Your task to perform on an android device: change timer sound Image 0: 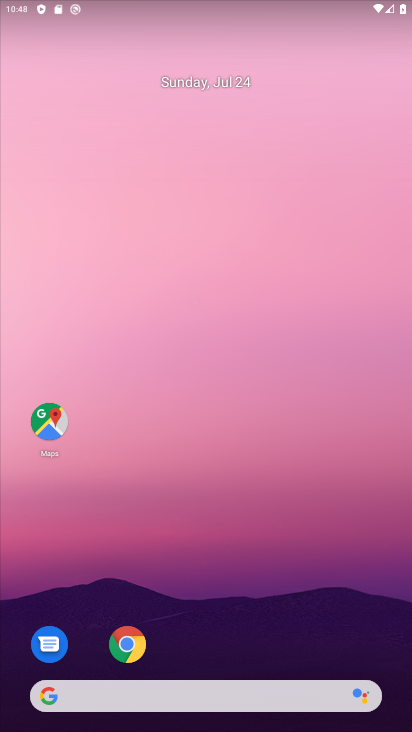
Step 0: drag from (317, 577) to (356, 0)
Your task to perform on an android device: change timer sound Image 1: 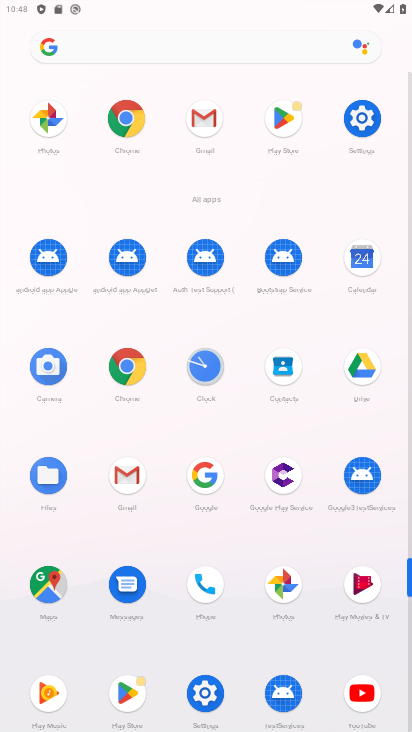
Step 1: click (202, 374)
Your task to perform on an android device: change timer sound Image 2: 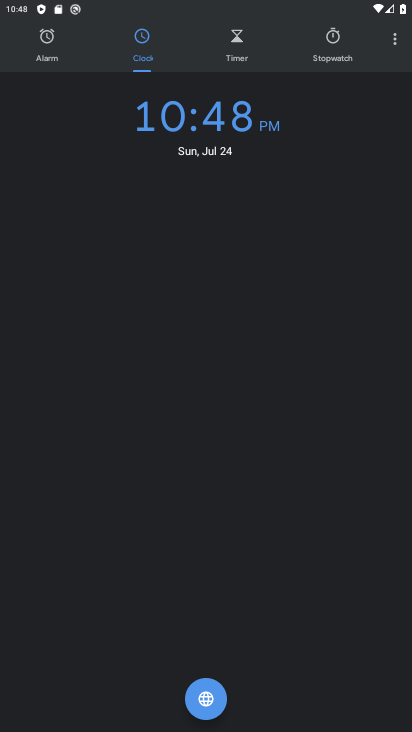
Step 2: click (395, 43)
Your task to perform on an android device: change timer sound Image 3: 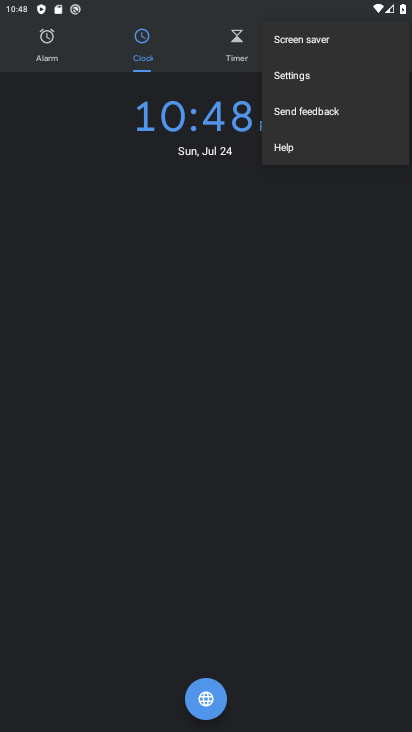
Step 3: click (307, 80)
Your task to perform on an android device: change timer sound Image 4: 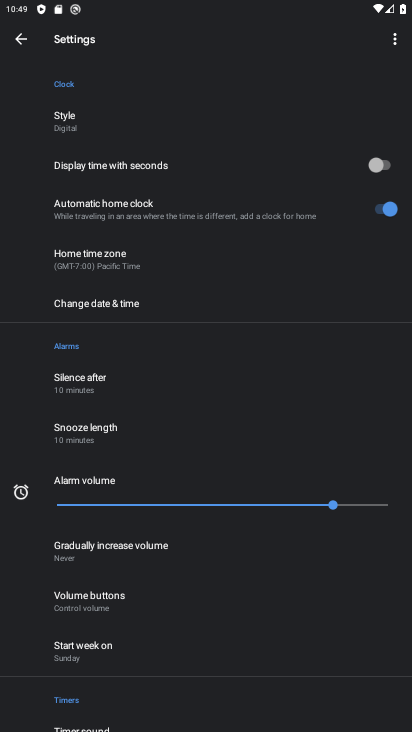
Step 4: drag from (223, 542) to (238, 179)
Your task to perform on an android device: change timer sound Image 5: 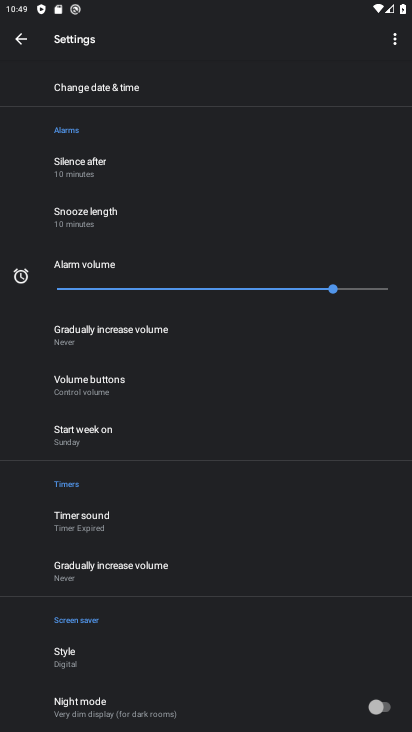
Step 5: click (77, 523)
Your task to perform on an android device: change timer sound Image 6: 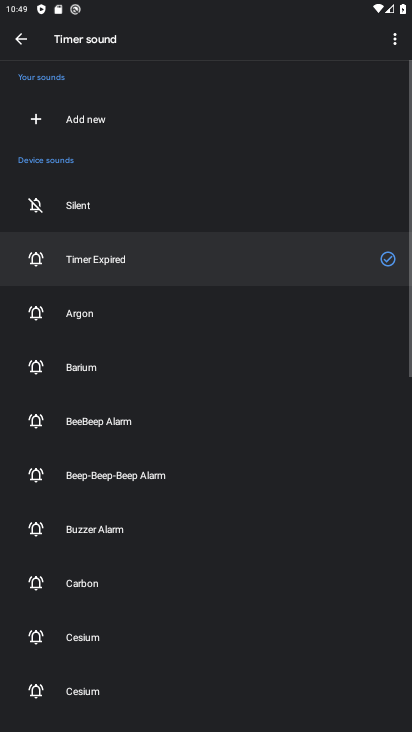
Step 6: click (32, 480)
Your task to perform on an android device: change timer sound Image 7: 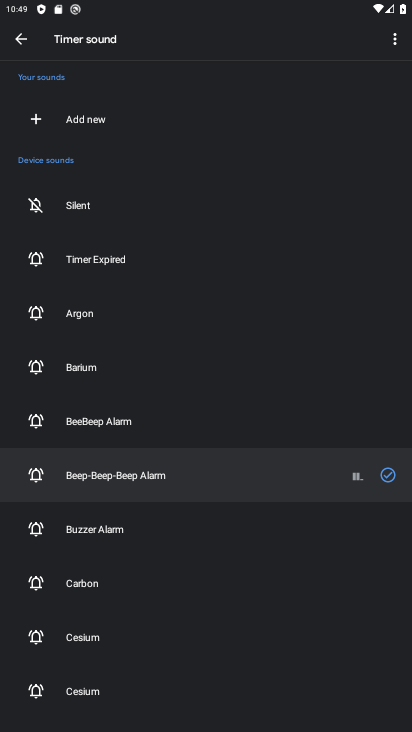
Step 7: task complete